Your task to perform on an android device: toggle wifi Image 0: 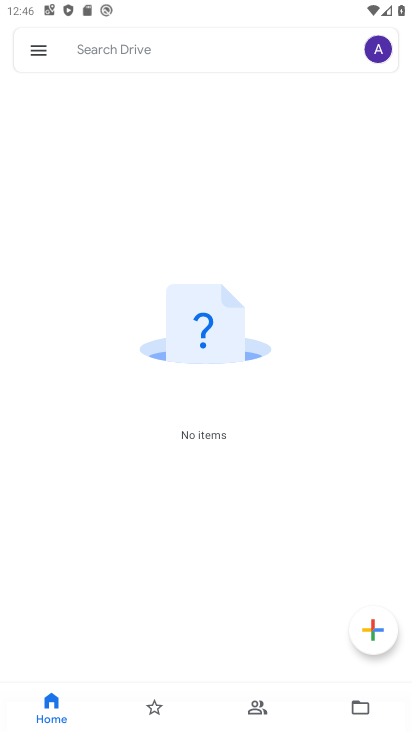
Step 0: press home button
Your task to perform on an android device: toggle wifi Image 1: 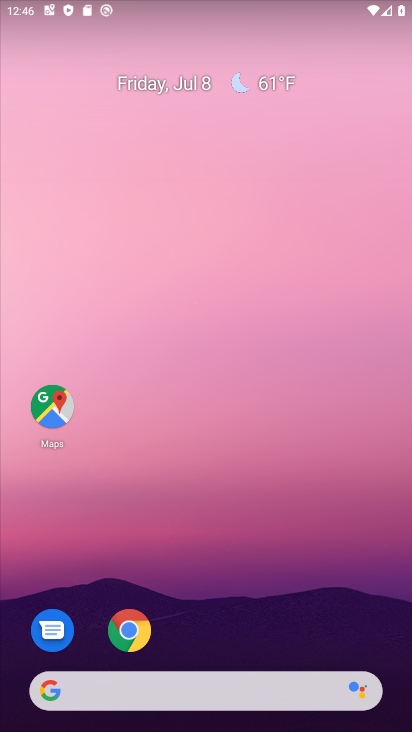
Step 1: drag from (189, 8) to (160, 488)
Your task to perform on an android device: toggle wifi Image 2: 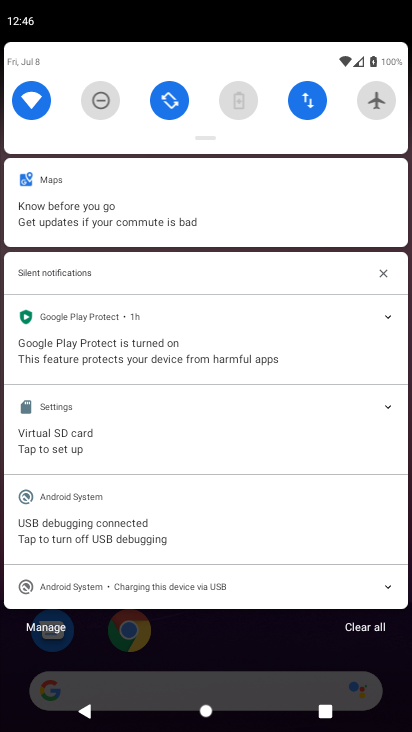
Step 2: click (28, 99)
Your task to perform on an android device: toggle wifi Image 3: 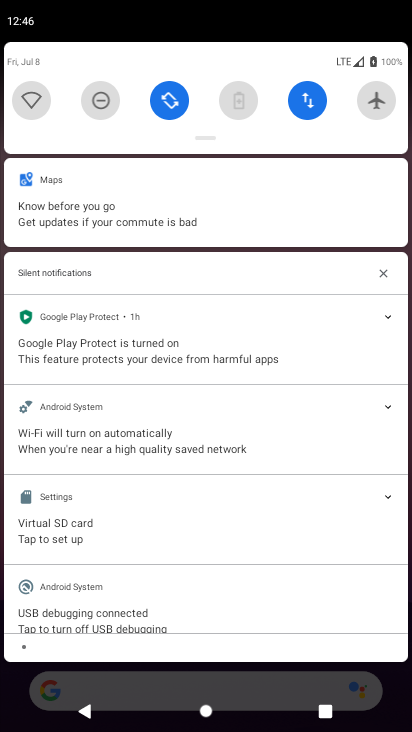
Step 3: task complete